Your task to perform on an android device: Go to sound settings Image 0: 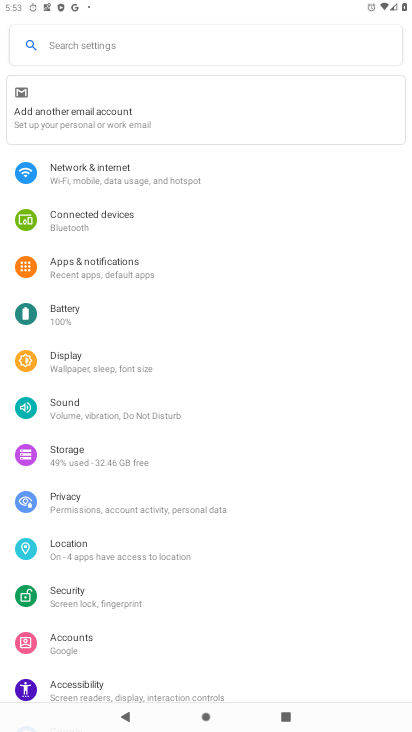
Step 0: click (105, 413)
Your task to perform on an android device: Go to sound settings Image 1: 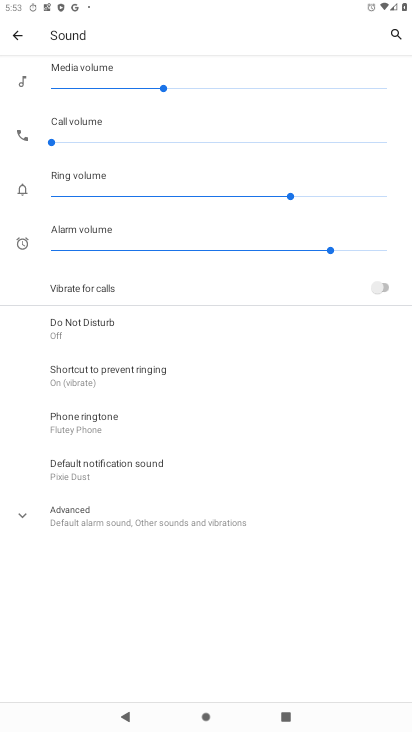
Step 1: task complete